Your task to perform on an android device: When is my next meeting? Image 0: 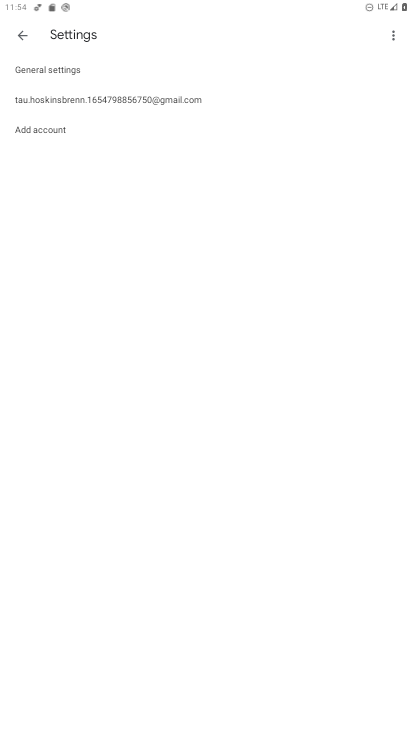
Step 0: press home button
Your task to perform on an android device: When is my next meeting? Image 1: 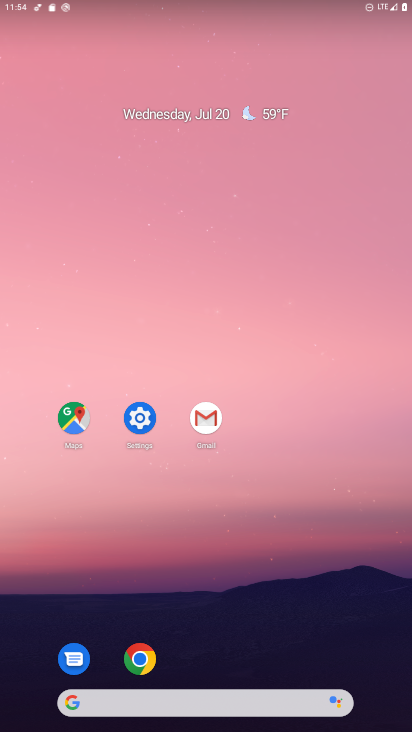
Step 1: drag from (394, 715) to (389, 119)
Your task to perform on an android device: When is my next meeting? Image 2: 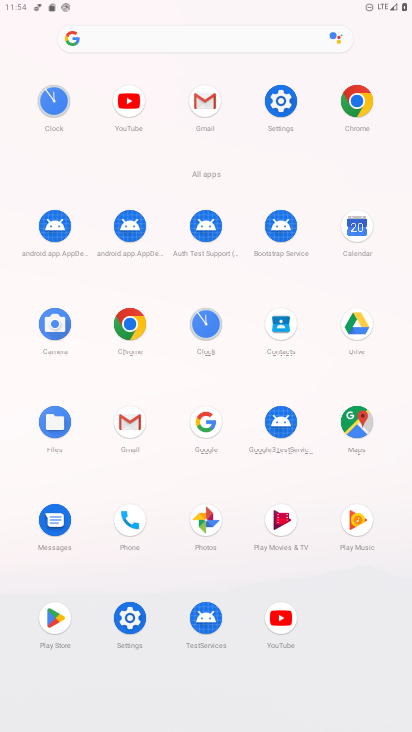
Step 2: click (362, 215)
Your task to perform on an android device: When is my next meeting? Image 3: 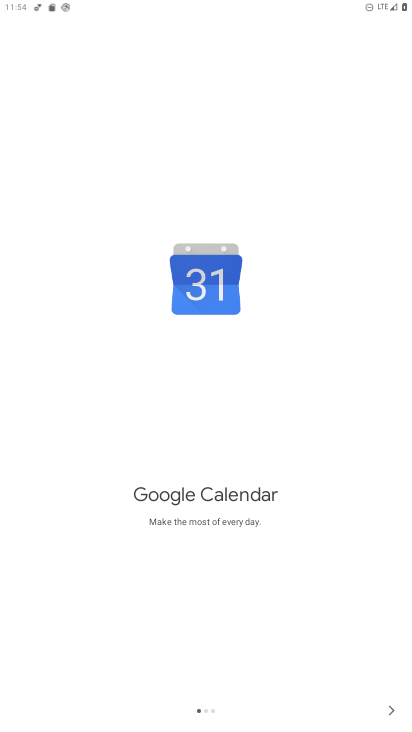
Step 3: click (386, 709)
Your task to perform on an android device: When is my next meeting? Image 4: 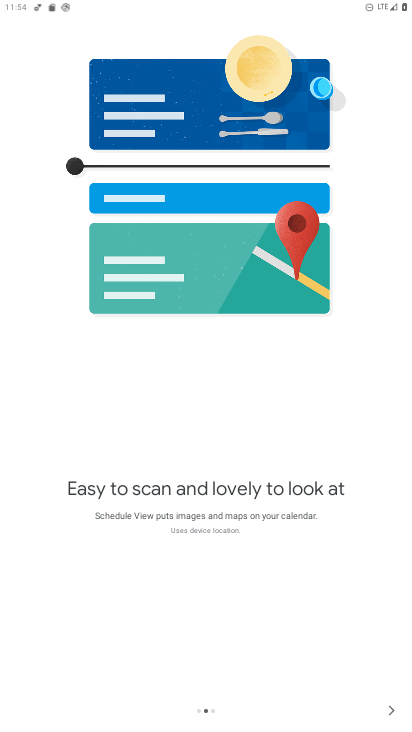
Step 4: click (388, 709)
Your task to perform on an android device: When is my next meeting? Image 5: 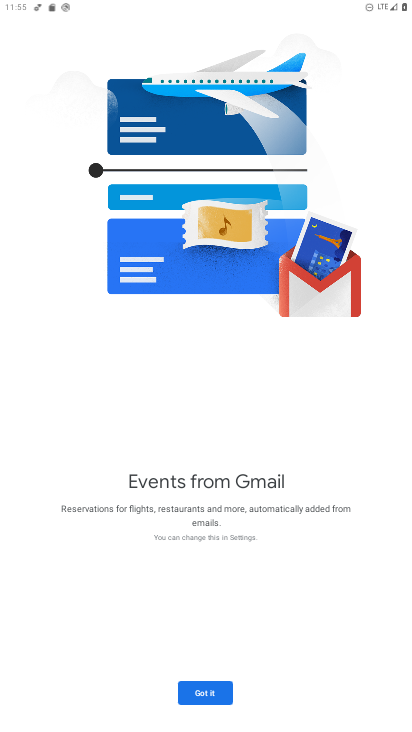
Step 5: click (208, 688)
Your task to perform on an android device: When is my next meeting? Image 6: 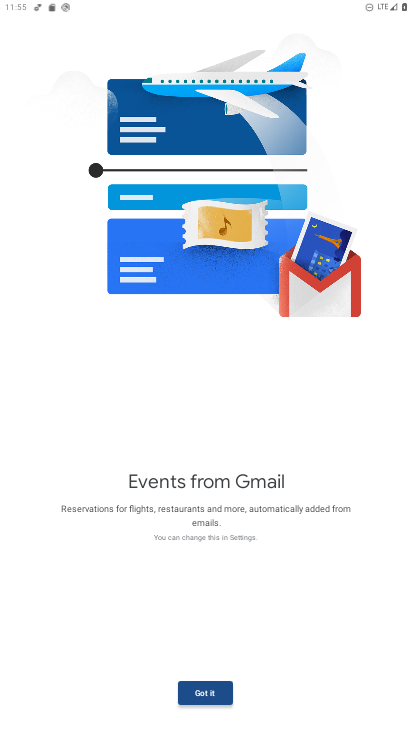
Step 6: click (208, 688)
Your task to perform on an android device: When is my next meeting? Image 7: 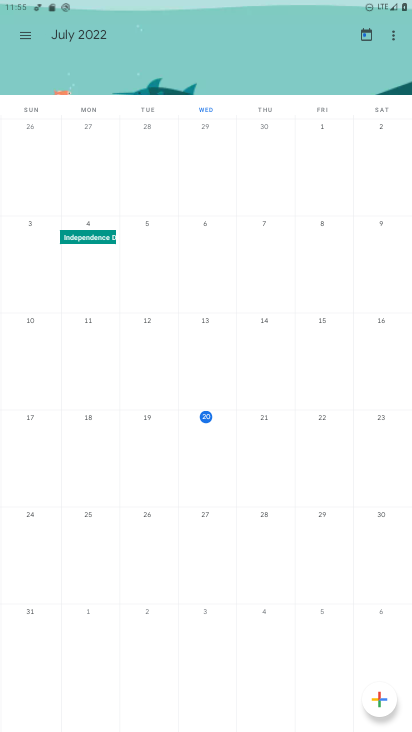
Step 7: click (31, 37)
Your task to perform on an android device: When is my next meeting? Image 8: 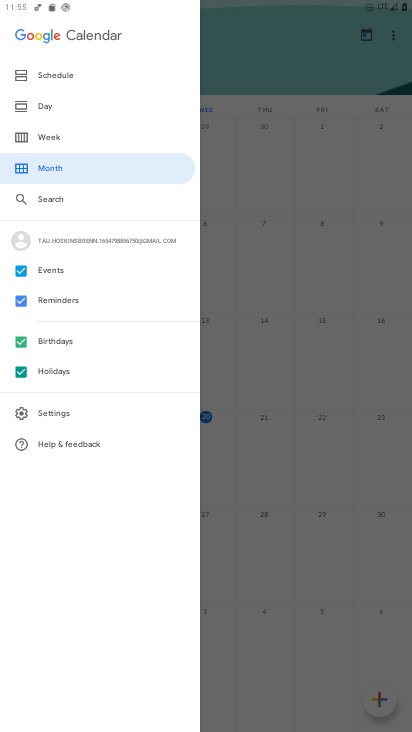
Step 8: click (20, 368)
Your task to perform on an android device: When is my next meeting? Image 9: 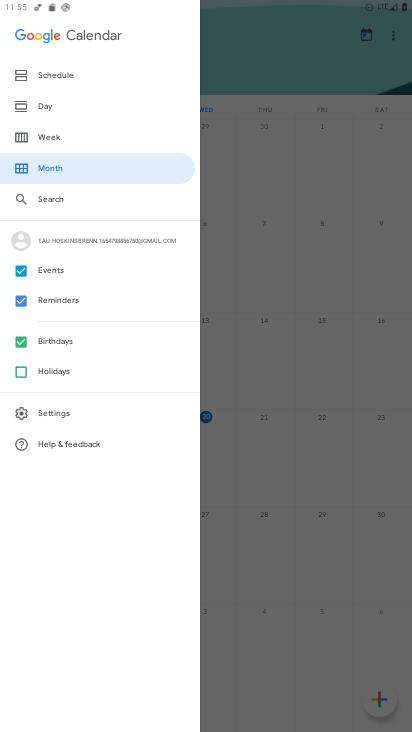
Step 9: click (18, 336)
Your task to perform on an android device: When is my next meeting? Image 10: 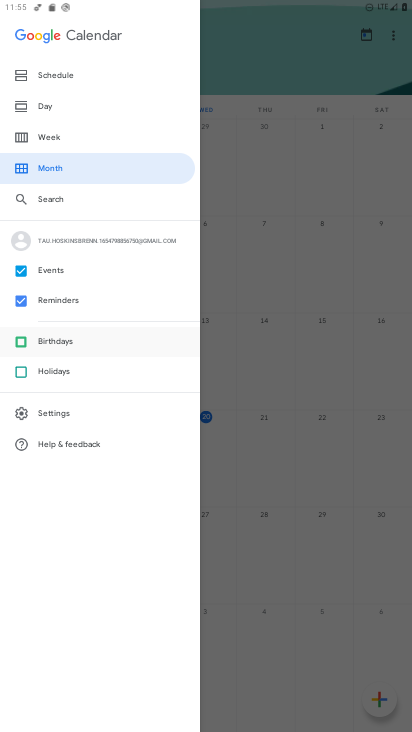
Step 10: click (17, 296)
Your task to perform on an android device: When is my next meeting? Image 11: 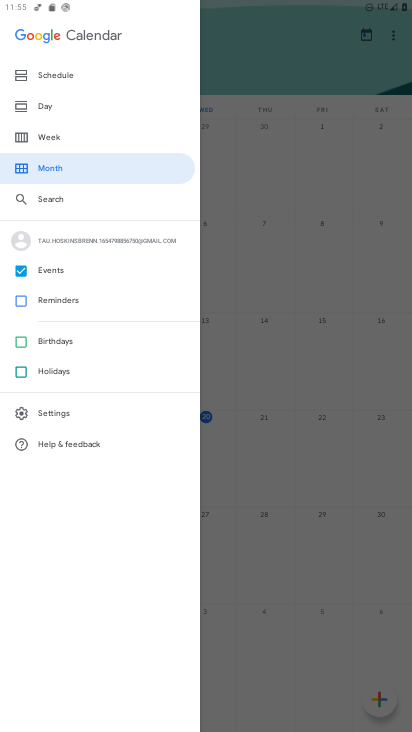
Step 11: click (52, 72)
Your task to perform on an android device: When is my next meeting? Image 12: 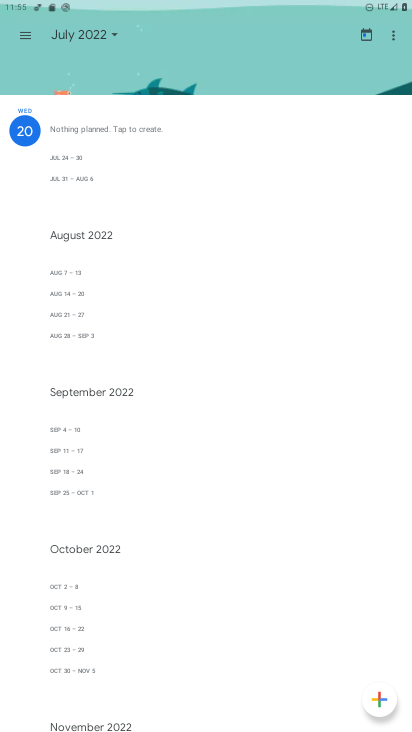
Step 12: task complete